Your task to perform on an android device: turn on the 12-hour format for clock Image 0: 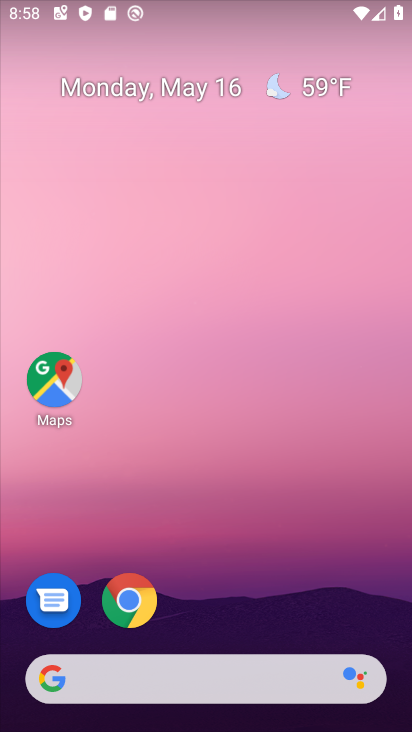
Step 0: task complete